Your task to perform on an android device: move an email to a new category in the gmail app Image 0: 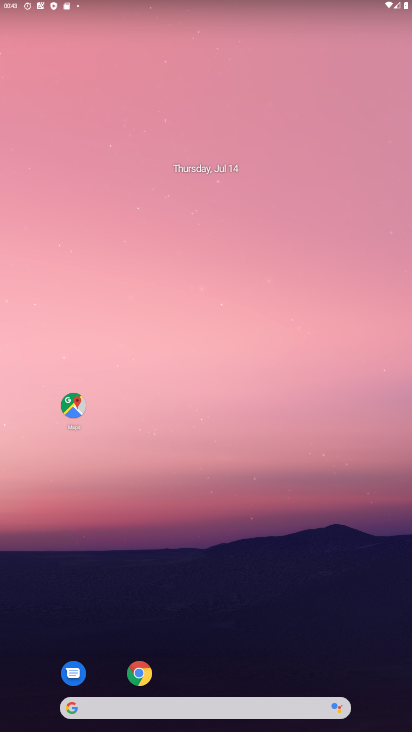
Step 0: drag from (204, 629) to (188, 142)
Your task to perform on an android device: move an email to a new category in the gmail app Image 1: 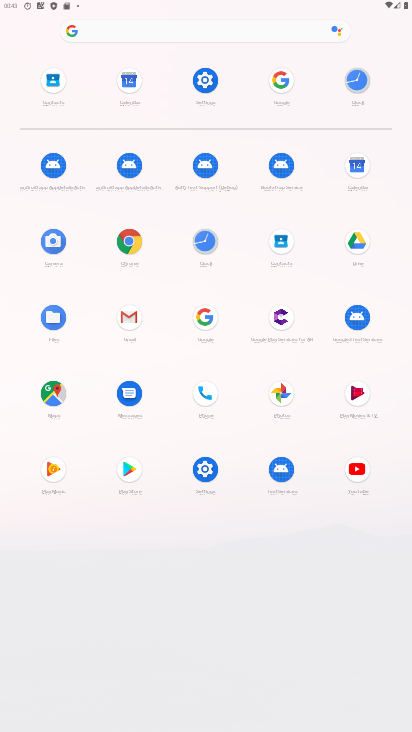
Step 1: click (133, 312)
Your task to perform on an android device: move an email to a new category in the gmail app Image 2: 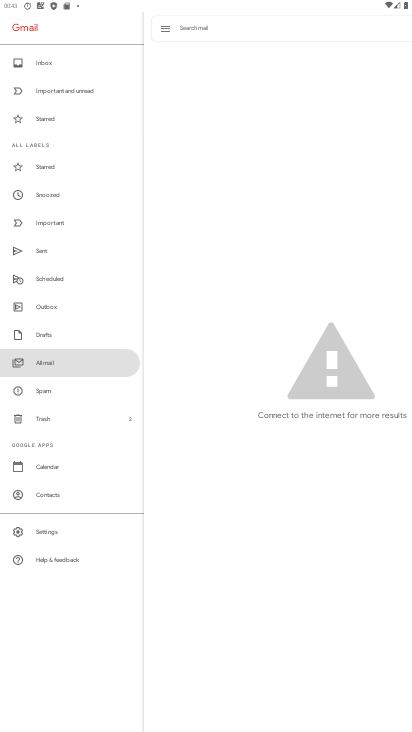
Step 2: click (37, 368)
Your task to perform on an android device: move an email to a new category in the gmail app Image 3: 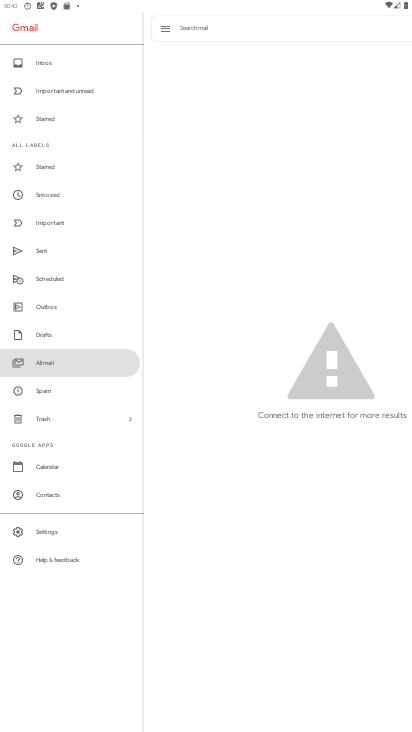
Step 3: task complete